Your task to perform on an android device: change the clock style Image 0: 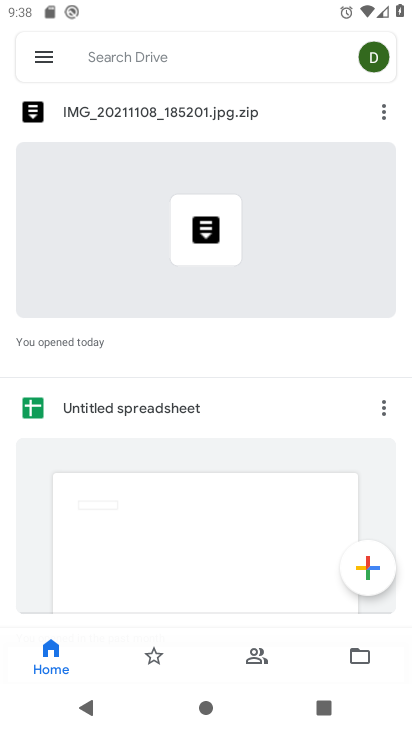
Step 0: press home button
Your task to perform on an android device: change the clock style Image 1: 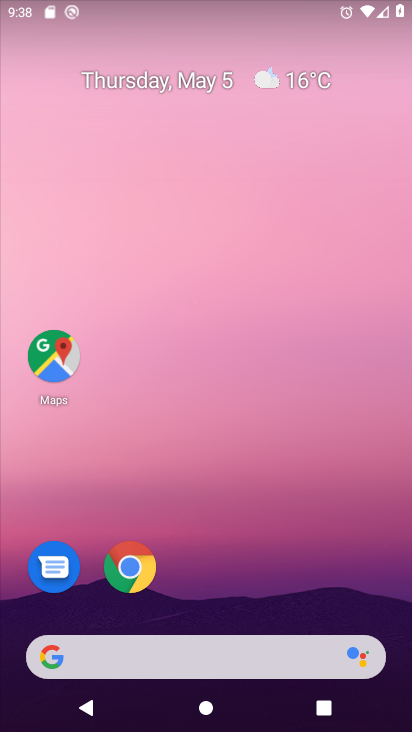
Step 1: drag from (248, 528) to (253, 16)
Your task to perform on an android device: change the clock style Image 2: 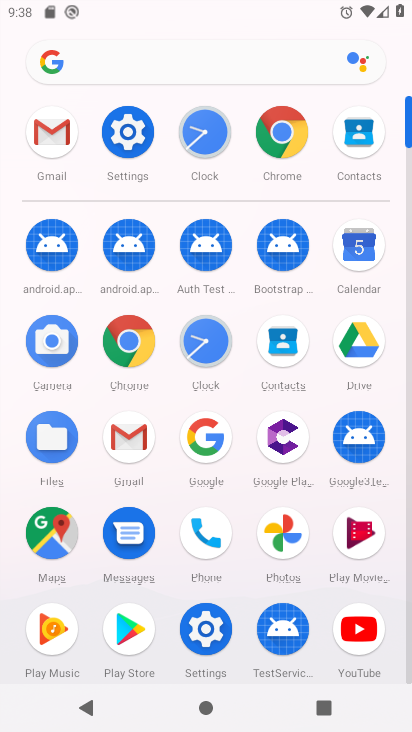
Step 2: click (212, 121)
Your task to perform on an android device: change the clock style Image 3: 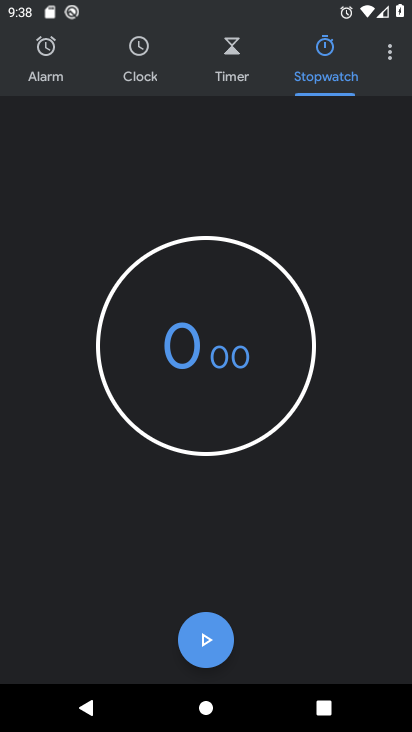
Step 3: click (388, 54)
Your task to perform on an android device: change the clock style Image 4: 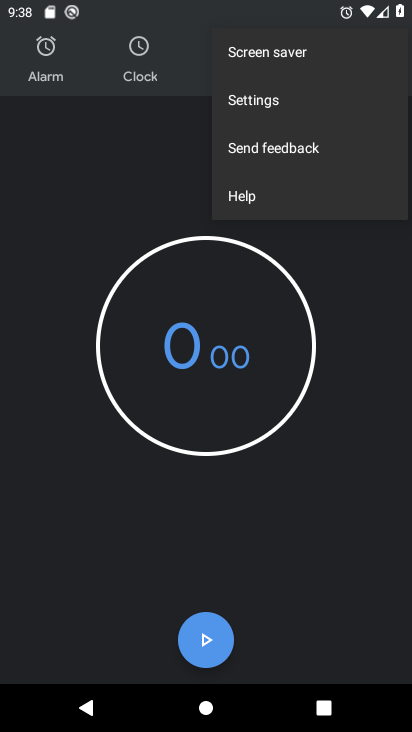
Step 4: click (330, 104)
Your task to perform on an android device: change the clock style Image 5: 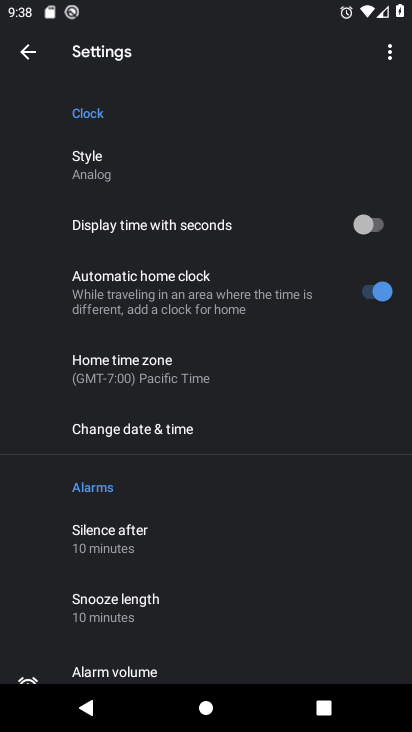
Step 5: click (135, 169)
Your task to perform on an android device: change the clock style Image 6: 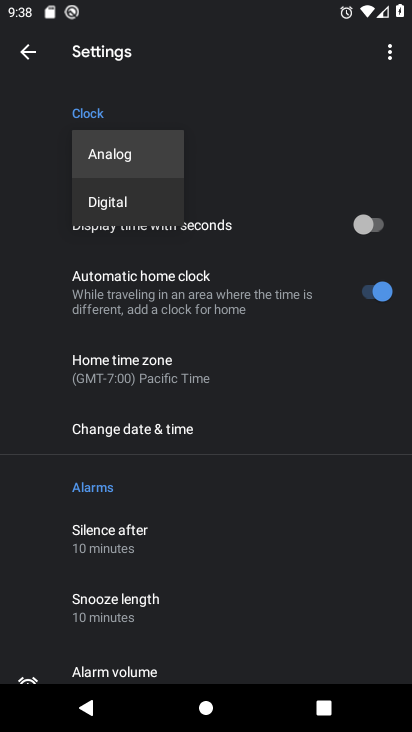
Step 6: click (138, 199)
Your task to perform on an android device: change the clock style Image 7: 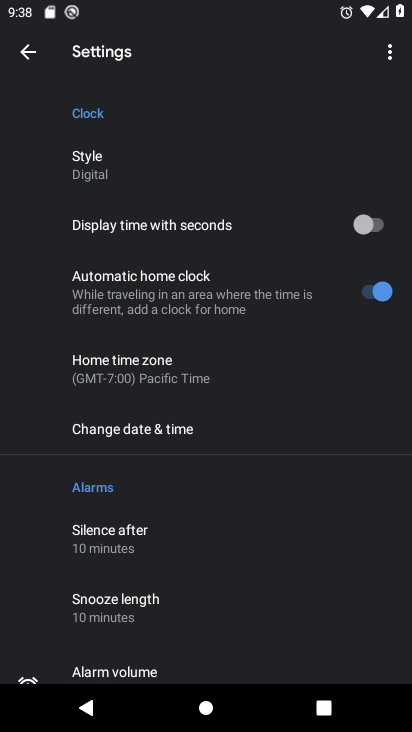
Step 7: task complete